Your task to perform on an android device: Go to display settings Image 0: 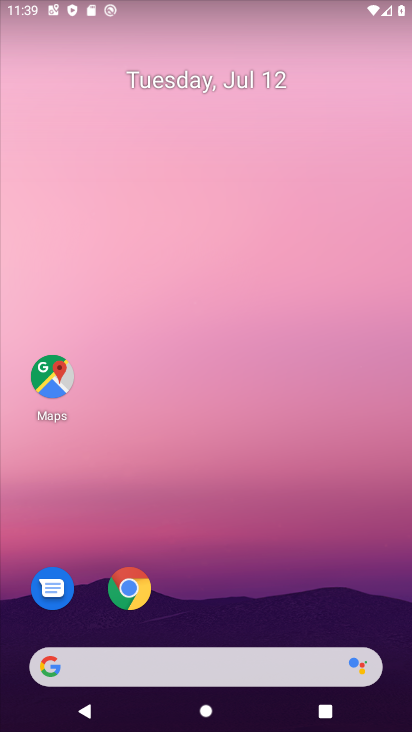
Step 0: drag from (380, 471) to (341, 73)
Your task to perform on an android device: Go to display settings Image 1: 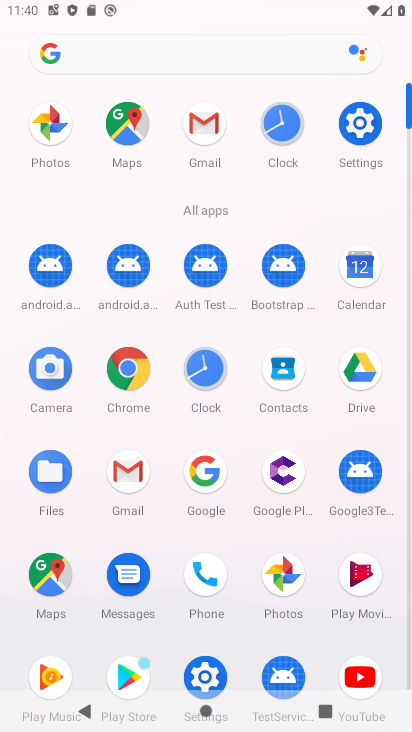
Step 1: click (209, 680)
Your task to perform on an android device: Go to display settings Image 2: 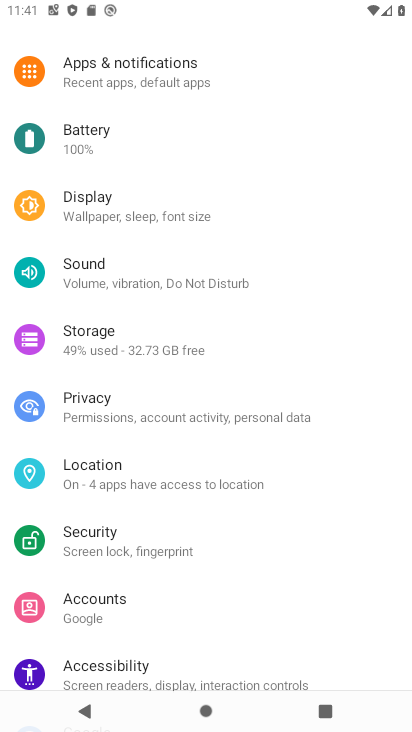
Step 2: click (88, 200)
Your task to perform on an android device: Go to display settings Image 3: 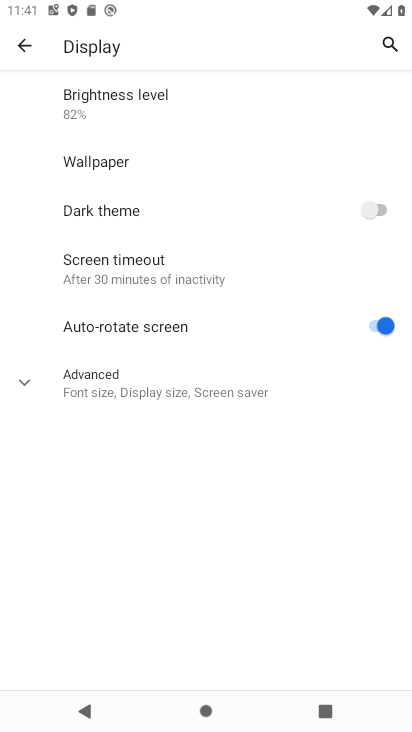
Step 3: click (18, 385)
Your task to perform on an android device: Go to display settings Image 4: 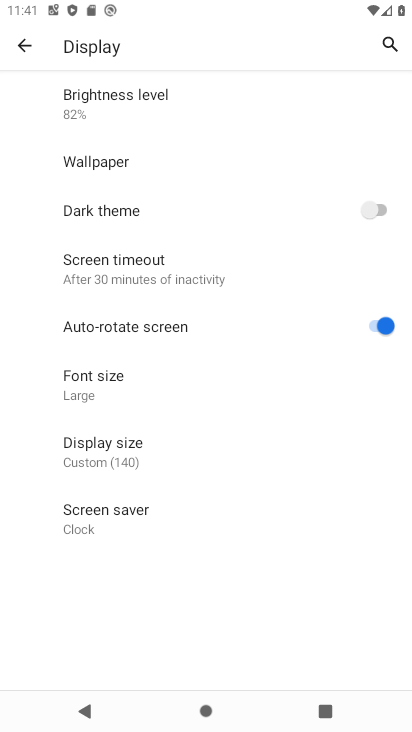
Step 4: task complete